Your task to perform on an android device: toggle priority inbox in the gmail app Image 0: 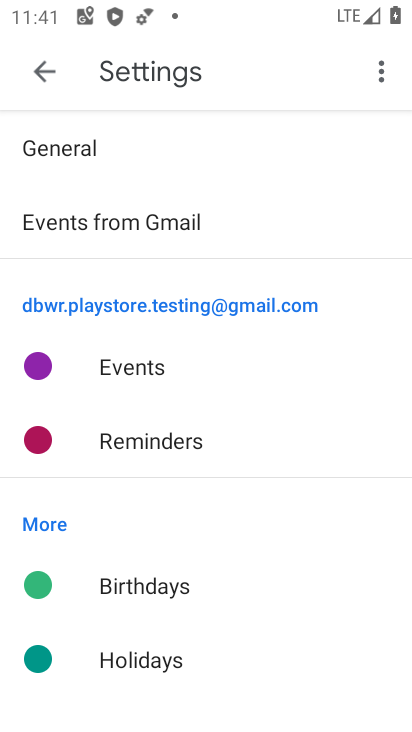
Step 0: press home button
Your task to perform on an android device: toggle priority inbox in the gmail app Image 1: 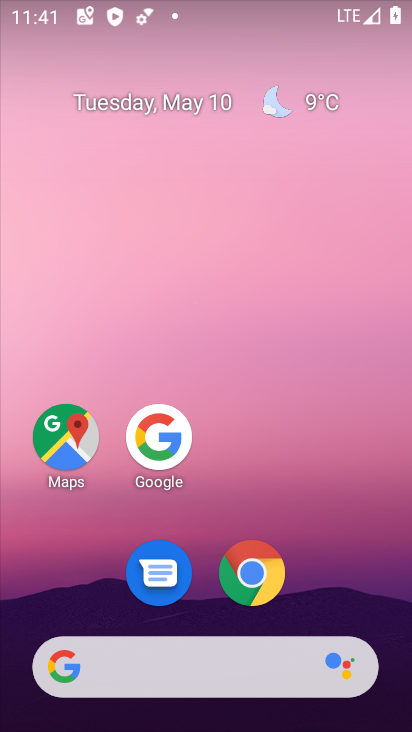
Step 1: drag from (159, 659) to (309, 145)
Your task to perform on an android device: toggle priority inbox in the gmail app Image 2: 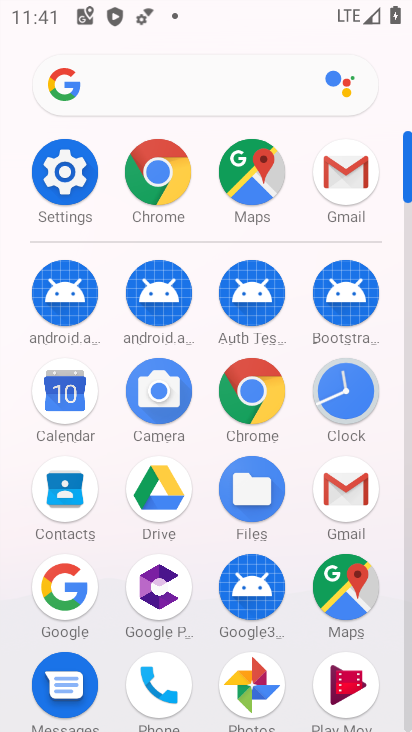
Step 2: click (345, 180)
Your task to perform on an android device: toggle priority inbox in the gmail app Image 3: 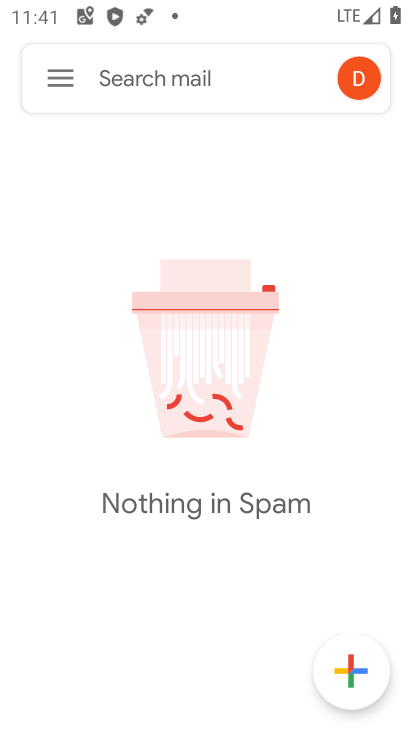
Step 3: click (64, 81)
Your task to perform on an android device: toggle priority inbox in the gmail app Image 4: 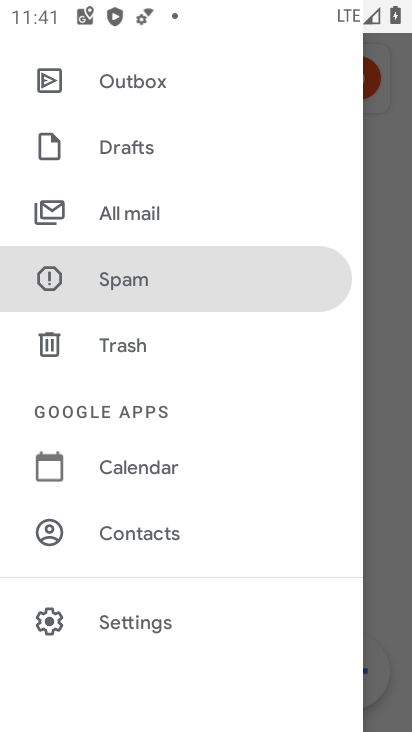
Step 4: click (153, 626)
Your task to perform on an android device: toggle priority inbox in the gmail app Image 5: 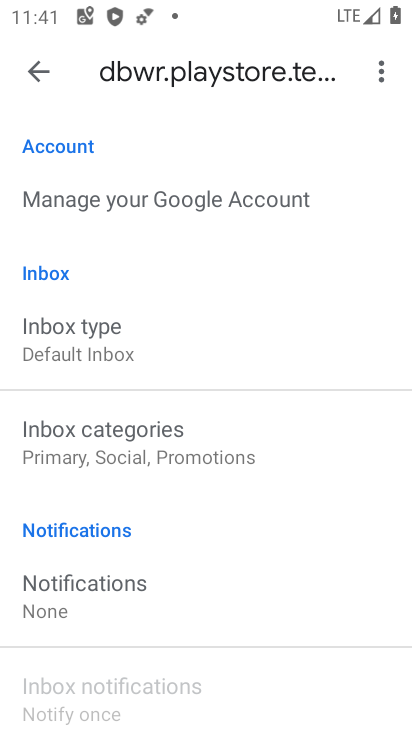
Step 5: click (98, 346)
Your task to perform on an android device: toggle priority inbox in the gmail app Image 6: 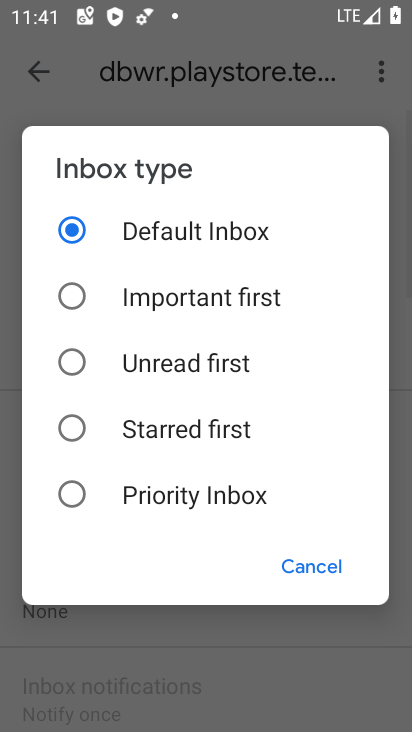
Step 6: click (76, 495)
Your task to perform on an android device: toggle priority inbox in the gmail app Image 7: 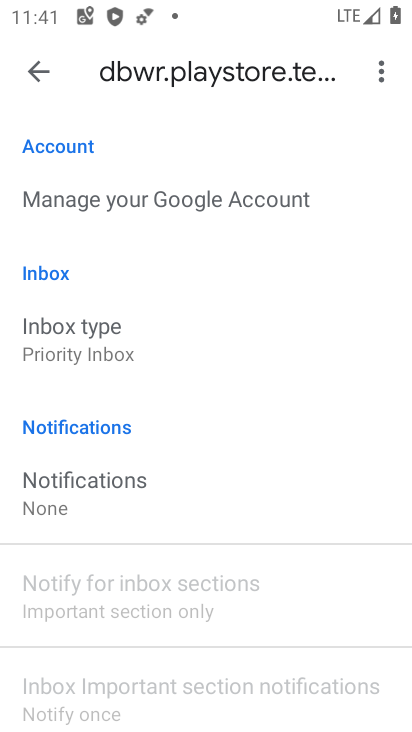
Step 7: task complete